Your task to perform on an android device: Go to internet settings Image 0: 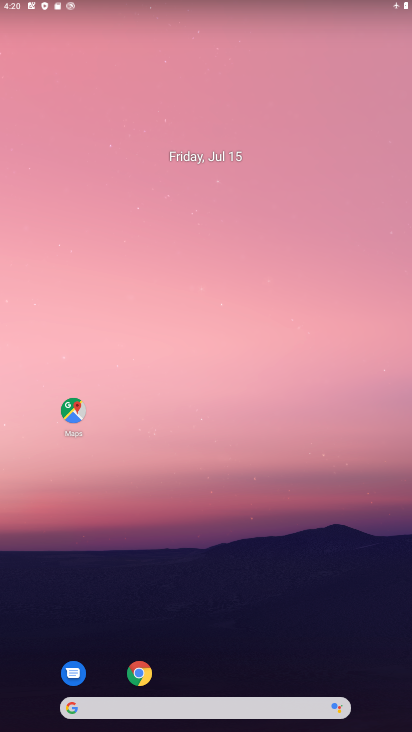
Step 0: drag from (298, 691) to (278, 85)
Your task to perform on an android device: Go to internet settings Image 1: 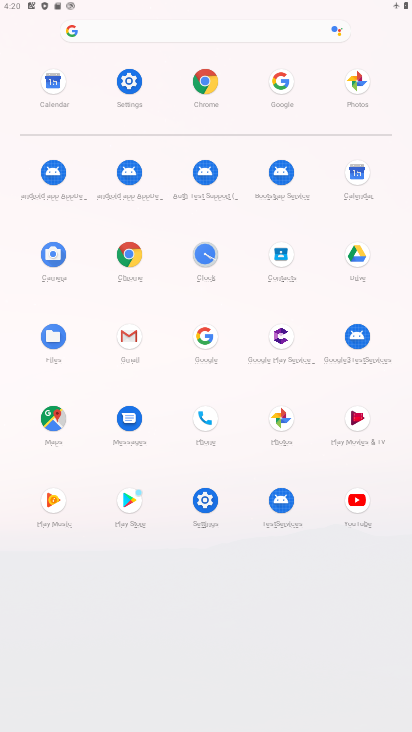
Step 1: click (134, 79)
Your task to perform on an android device: Go to internet settings Image 2: 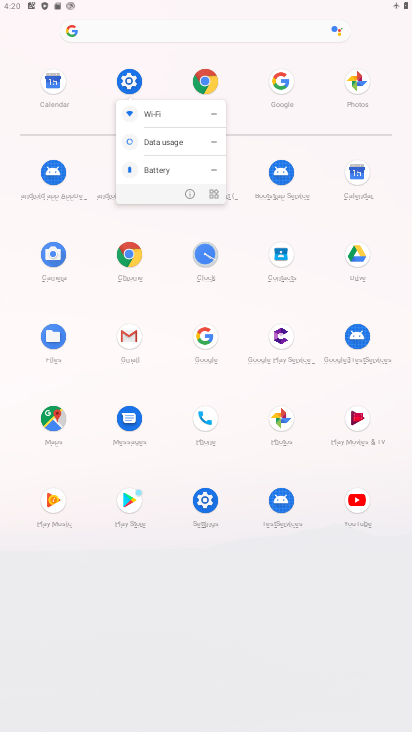
Step 2: click (124, 86)
Your task to perform on an android device: Go to internet settings Image 3: 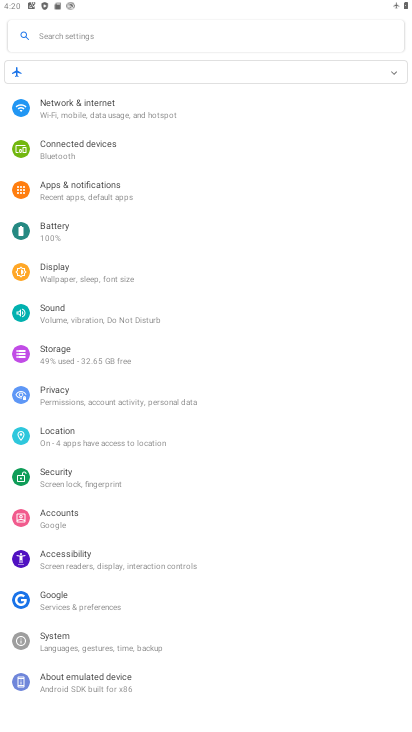
Step 3: click (117, 108)
Your task to perform on an android device: Go to internet settings Image 4: 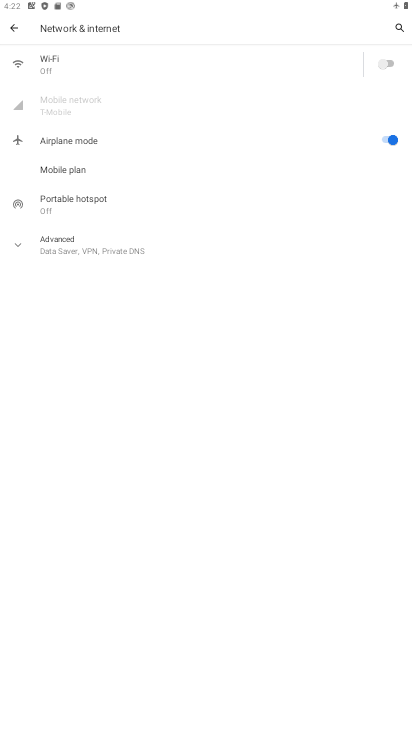
Step 4: task complete